Your task to perform on an android device: Open Chrome and go to settings Image 0: 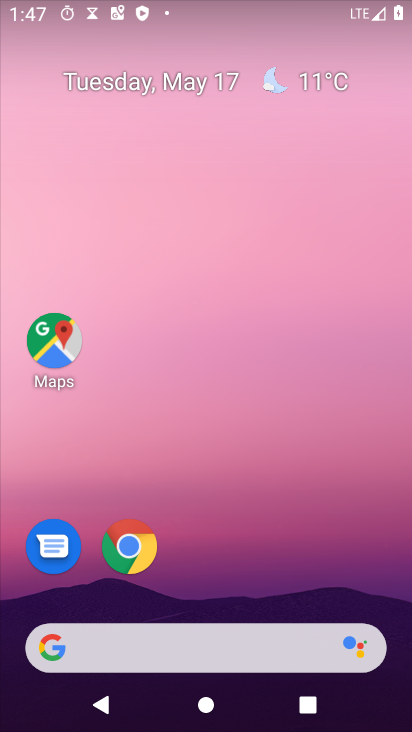
Step 0: click (139, 539)
Your task to perform on an android device: Open Chrome and go to settings Image 1: 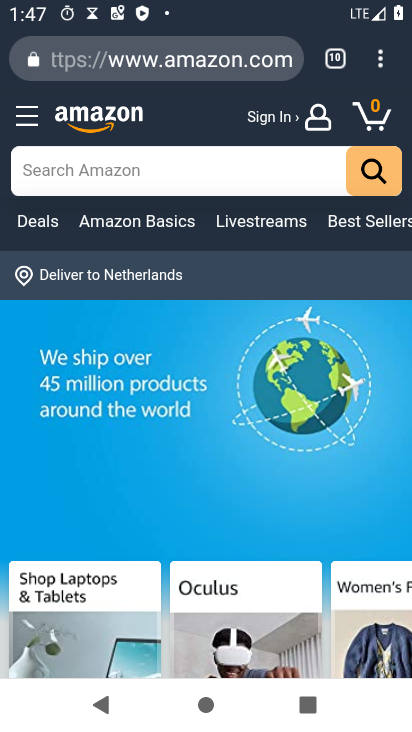
Step 1: task complete